Your task to perform on an android device: Show me popular videos on Youtube Image 0: 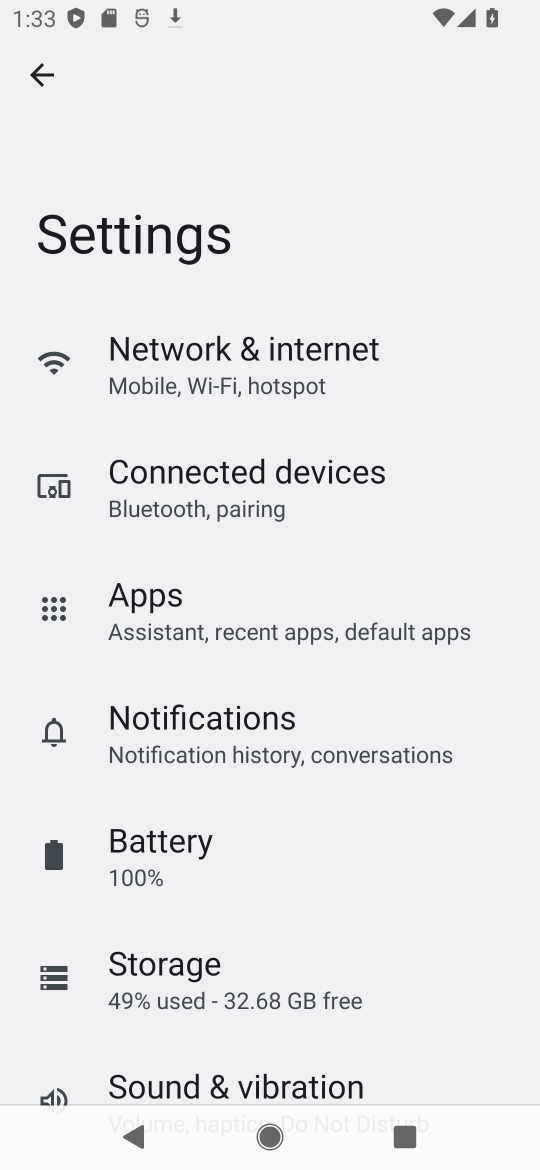
Step 0: press home button
Your task to perform on an android device: Show me popular videos on Youtube Image 1: 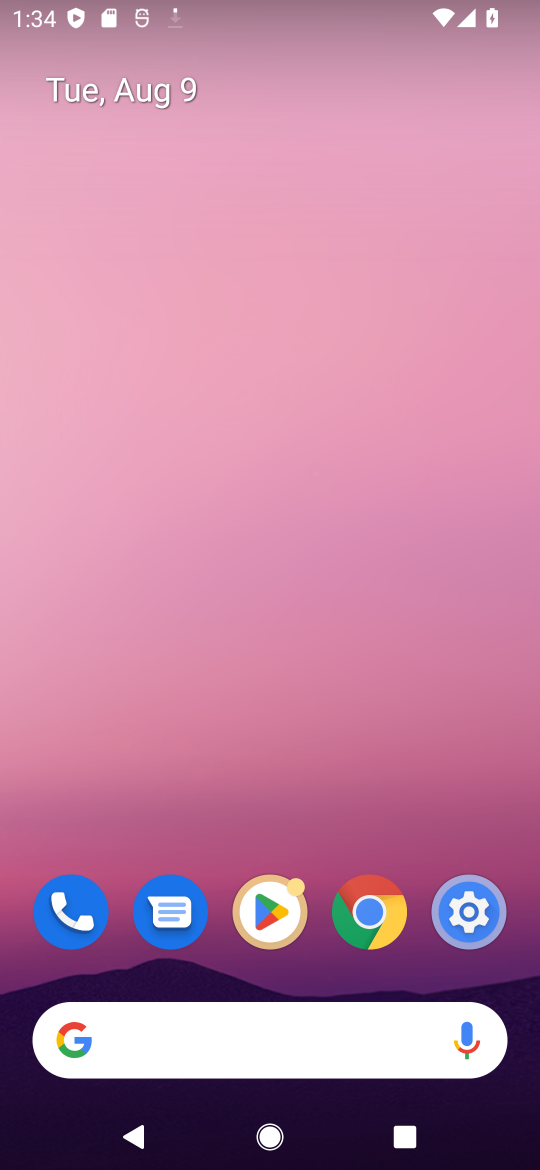
Step 1: drag from (307, 802) to (240, 112)
Your task to perform on an android device: Show me popular videos on Youtube Image 2: 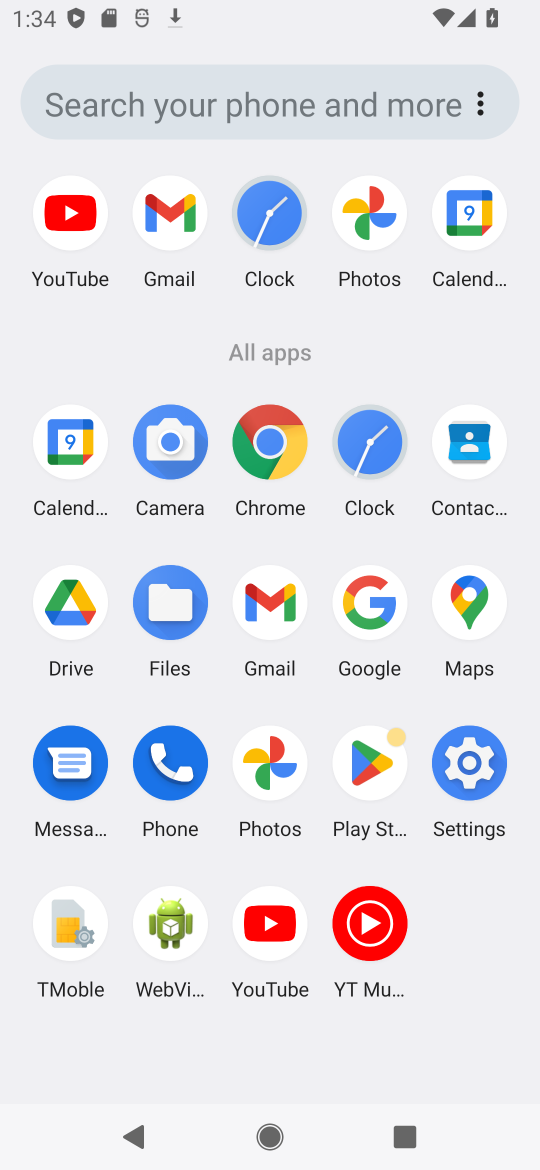
Step 2: click (65, 218)
Your task to perform on an android device: Show me popular videos on Youtube Image 3: 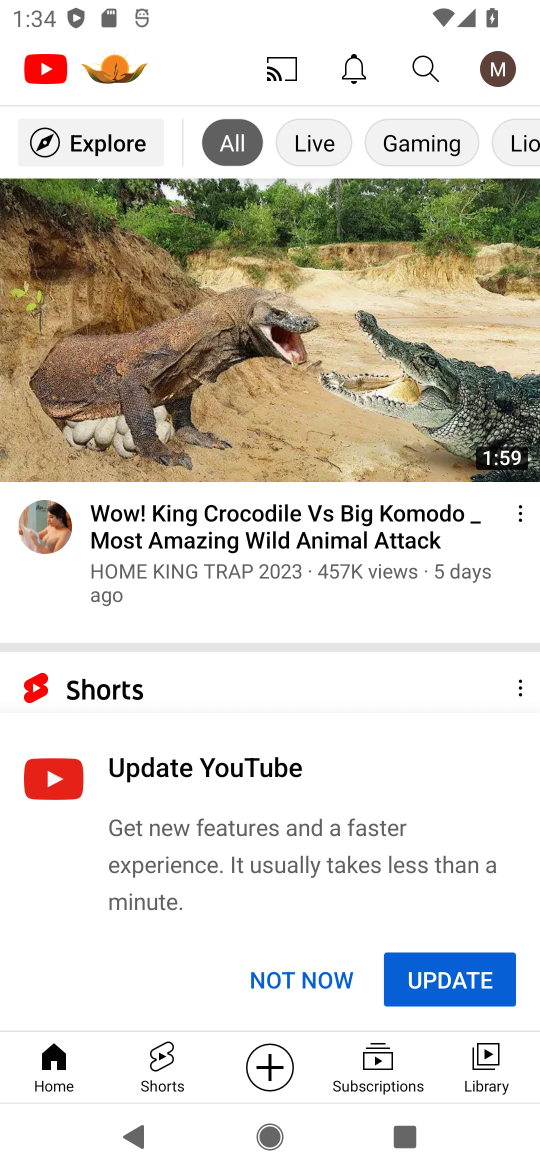
Step 3: click (160, 1056)
Your task to perform on an android device: Show me popular videos on Youtube Image 4: 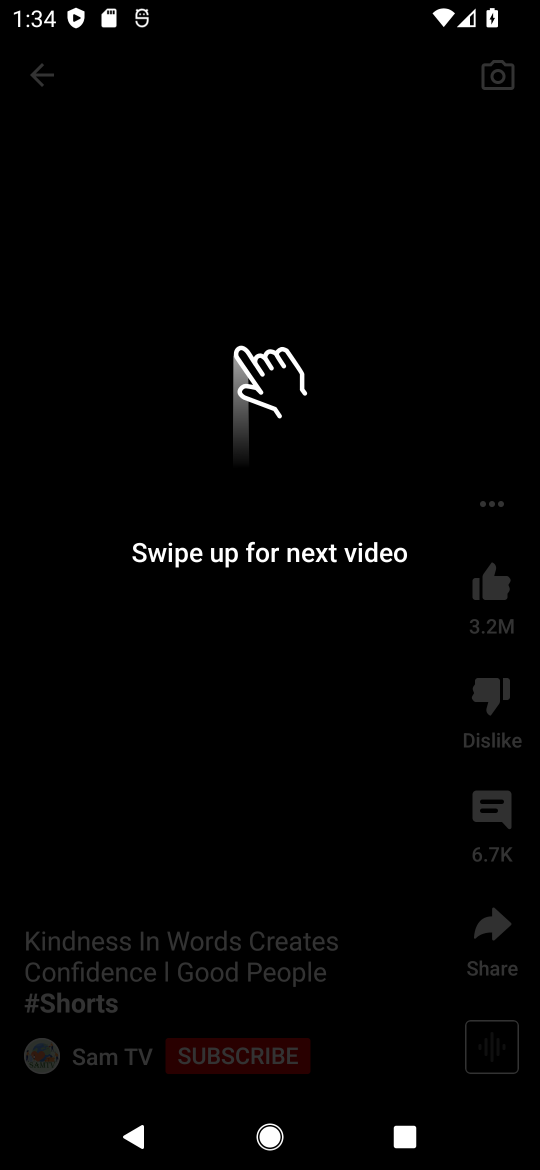
Step 4: click (264, 481)
Your task to perform on an android device: Show me popular videos on Youtube Image 5: 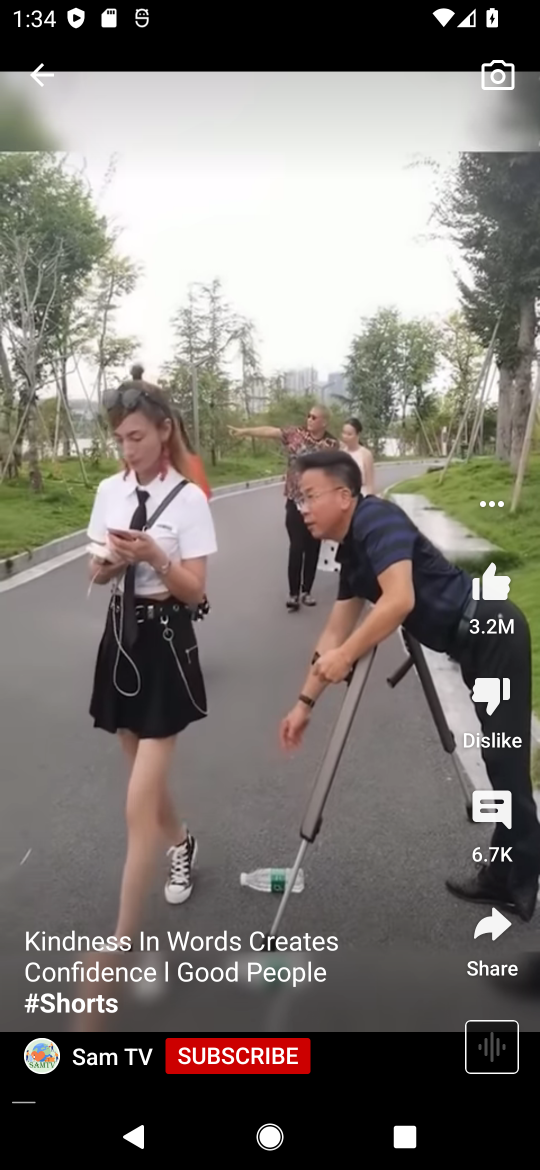
Step 5: task complete